Your task to perform on an android device: Open Google Chrome Image 0: 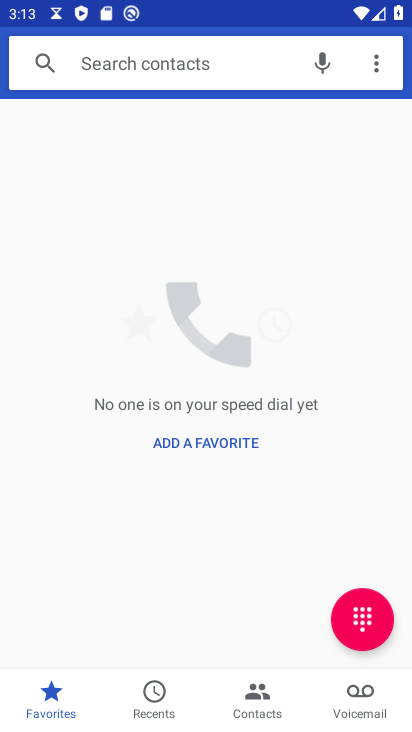
Step 0: press home button
Your task to perform on an android device: Open Google Chrome Image 1: 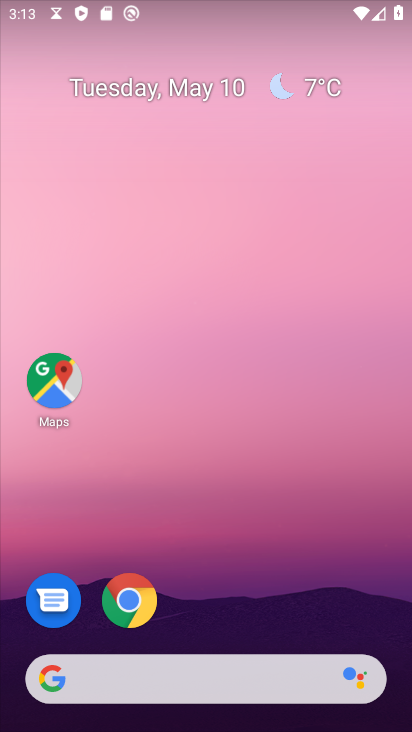
Step 1: click (115, 577)
Your task to perform on an android device: Open Google Chrome Image 2: 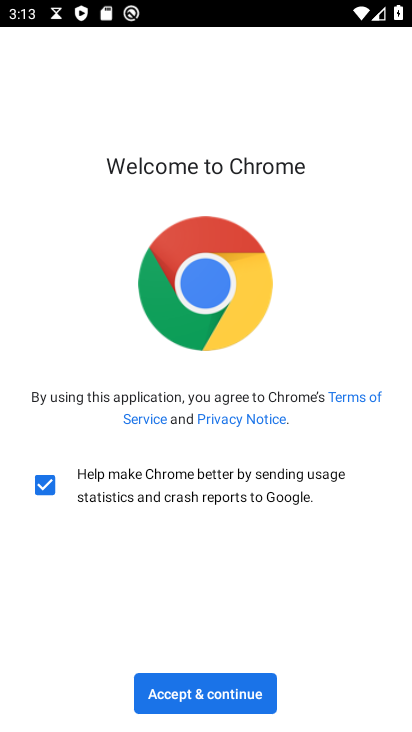
Step 2: click (254, 689)
Your task to perform on an android device: Open Google Chrome Image 3: 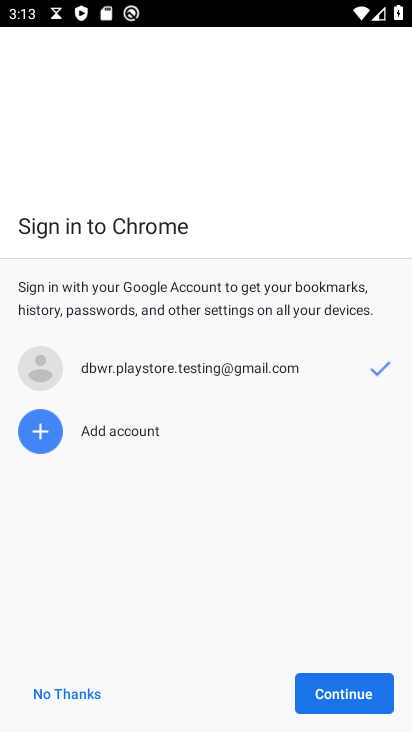
Step 3: click (356, 693)
Your task to perform on an android device: Open Google Chrome Image 4: 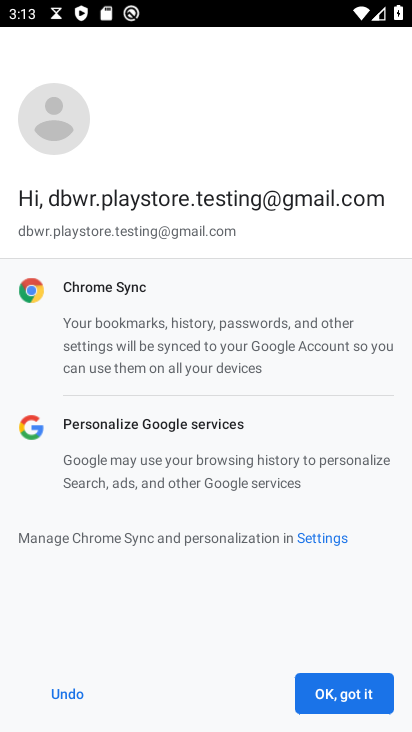
Step 4: click (355, 695)
Your task to perform on an android device: Open Google Chrome Image 5: 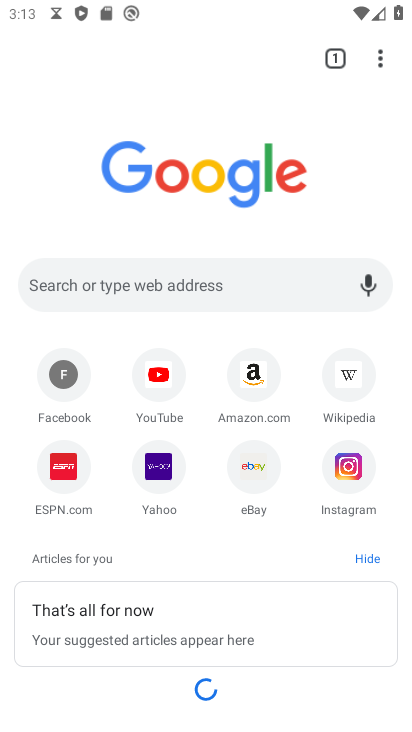
Step 5: task complete